Your task to perform on an android device: Open network settings Image 0: 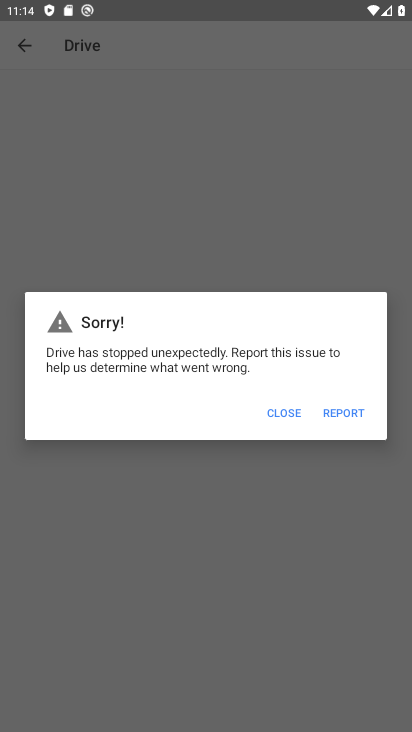
Step 0: drag from (198, 584) to (241, 200)
Your task to perform on an android device: Open network settings Image 1: 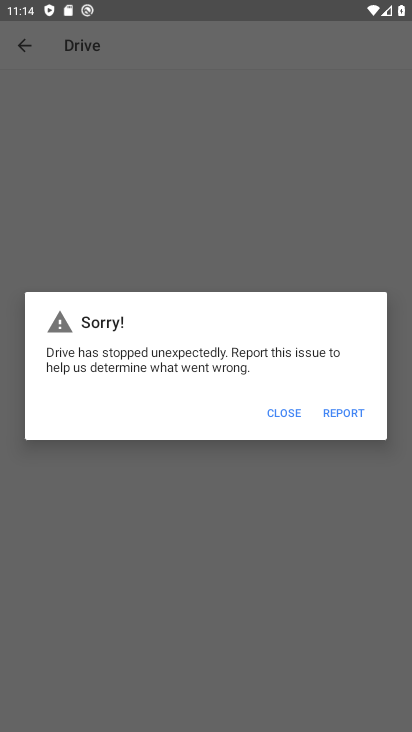
Step 1: drag from (237, 668) to (256, 204)
Your task to perform on an android device: Open network settings Image 2: 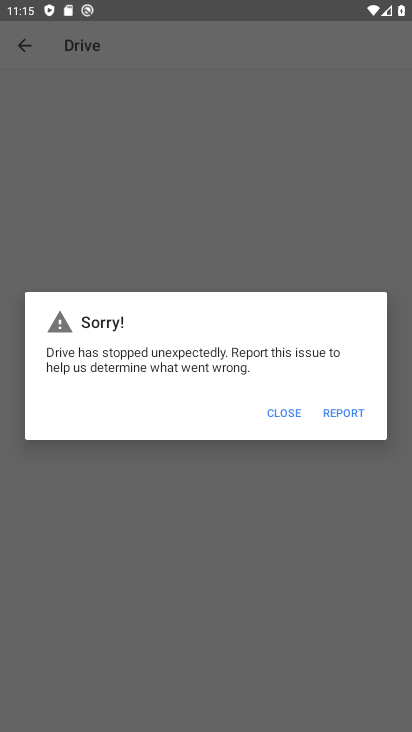
Step 2: click (280, 411)
Your task to perform on an android device: Open network settings Image 3: 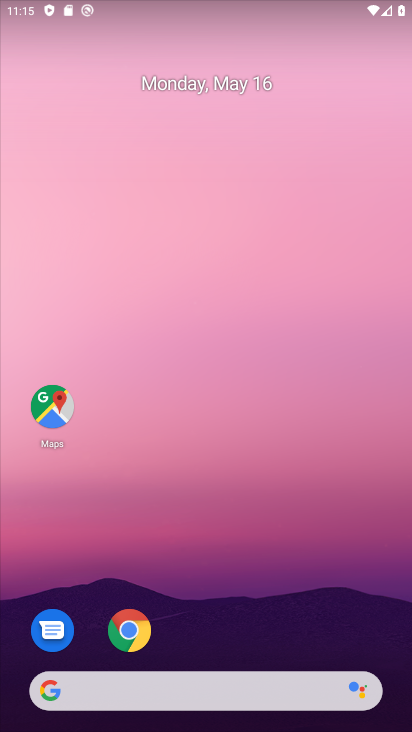
Step 3: drag from (179, 528) to (179, 344)
Your task to perform on an android device: Open network settings Image 4: 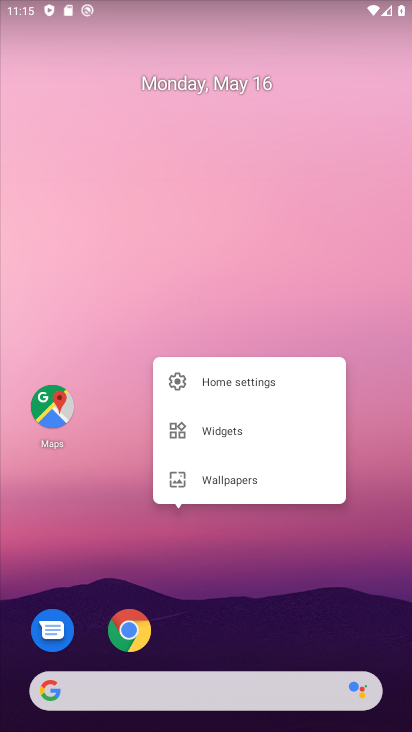
Step 4: click (108, 510)
Your task to perform on an android device: Open network settings Image 5: 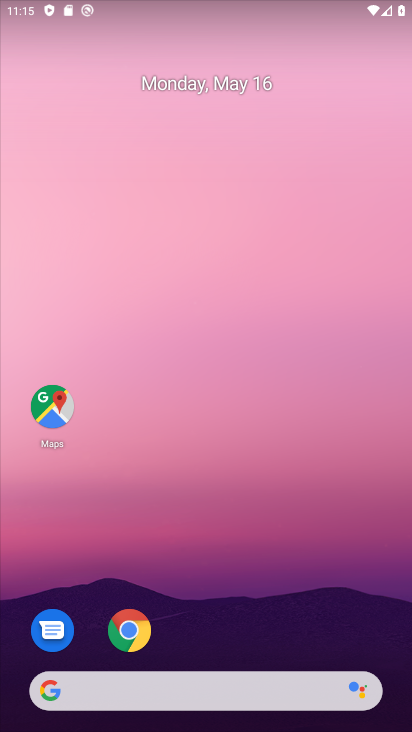
Step 5: drag from (209, 674) to (248, 200)
Your task to perform on an android device: Open network settings Image 6: 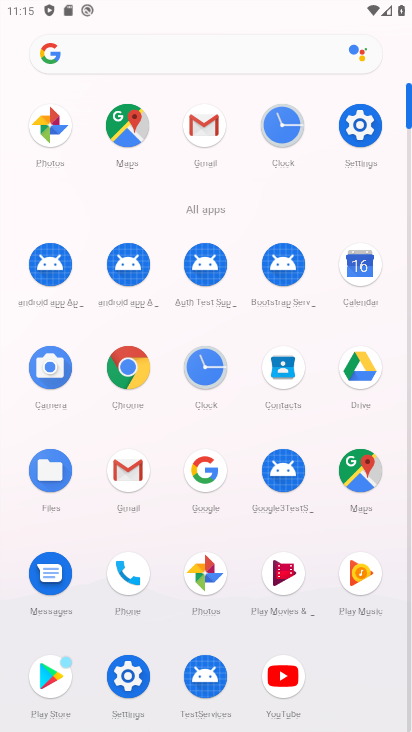
Step 6: click (341, 135)
Your task to perform on an android device: Open network settings Image 7: 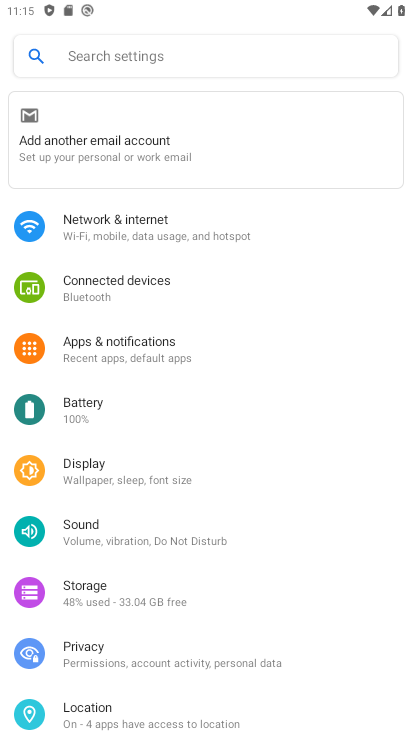
Step 7: click (137, 228)
Your task to perform on an android device: Open network settings Image 8: 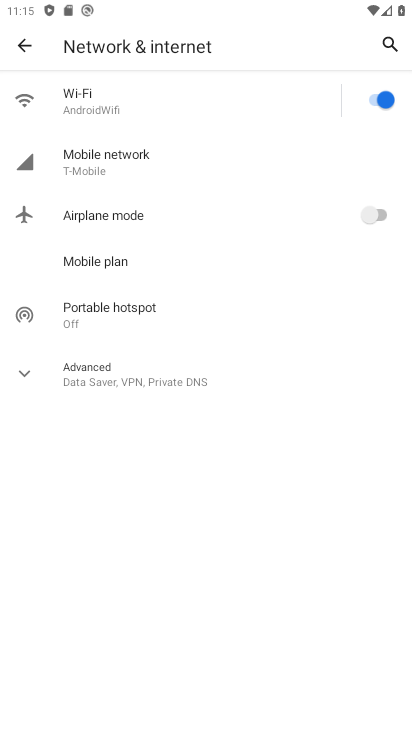
Step 8: click (105, 373)
Your task to perform on an android device: Open network settings Image 9: 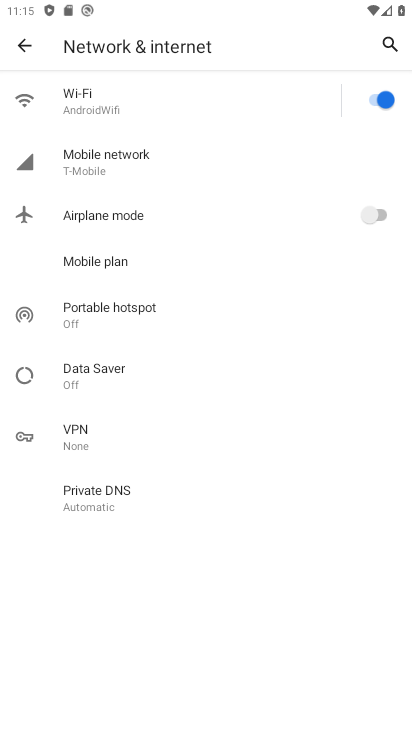
Step 9: task complete